Your task to perform on an android device: open chrome and create a bookmark for the current page Image 0: 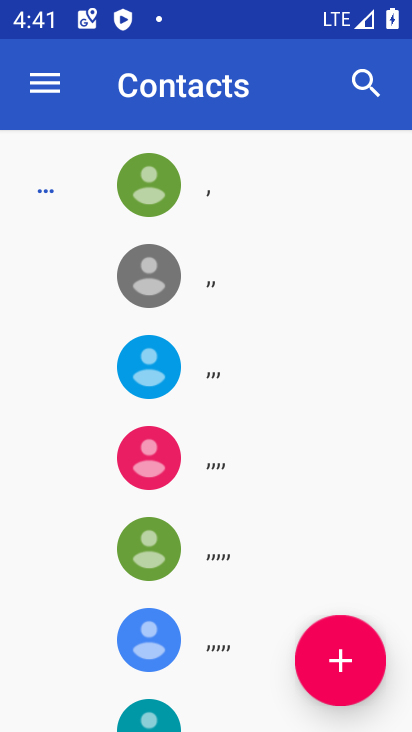
Step 0: press home button
Your task to perform on an android device: open chrome and create a bookmark for the current page Image 1: 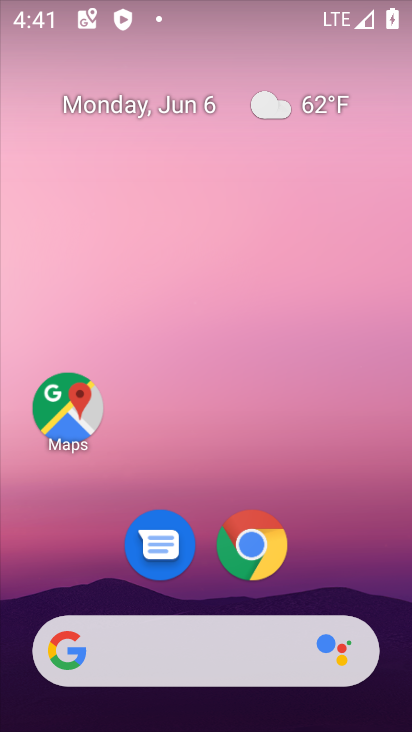
Step 1: click (246, 545)
Your task to perform on an android device: open chrome and create a bookmark for the current page Image 2: 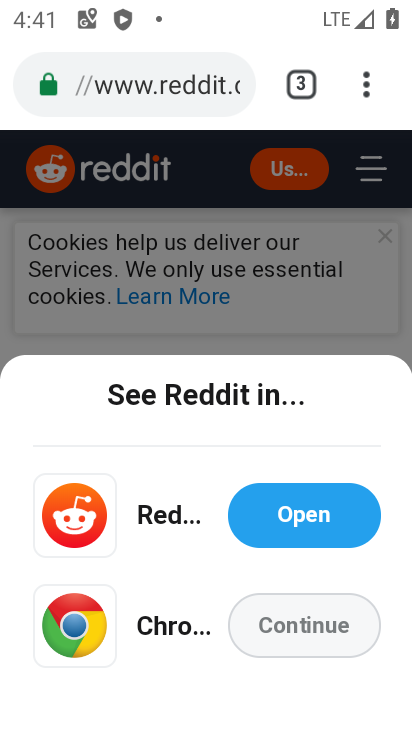
Step 2: click (366, 90)
Your task to perform on an android device: open chrome and create a bookmark for the current page Image 3: 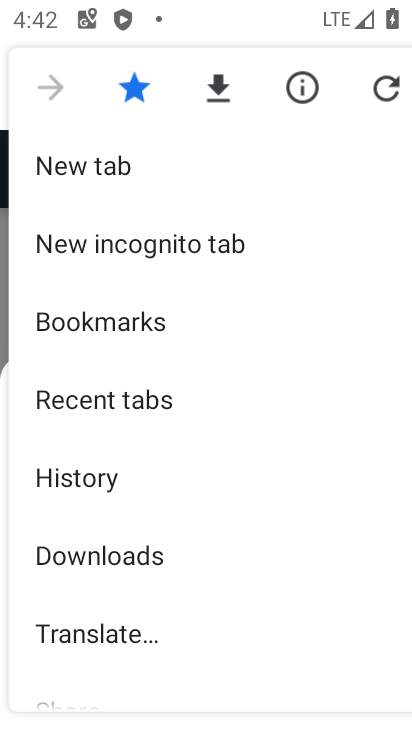
Step 3: task complete